Your task to perform on an android device: Search for the best custom wallets on Etsy. Image 0: 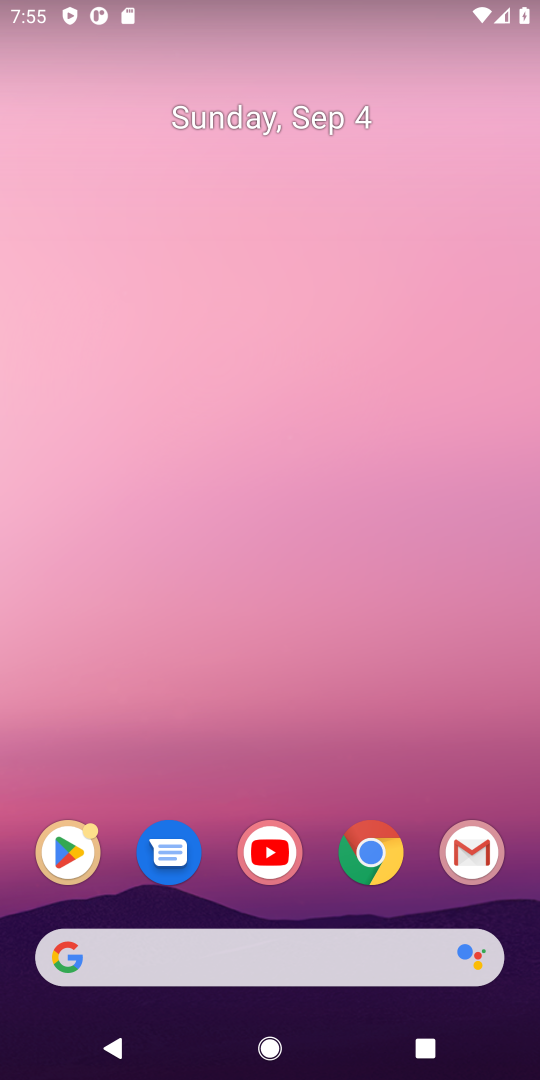
Step 0: drag from (441, 756) to (284, 6)
Your task to perform on an android device: Search for the best custom wallets on Etsy. Image 1: 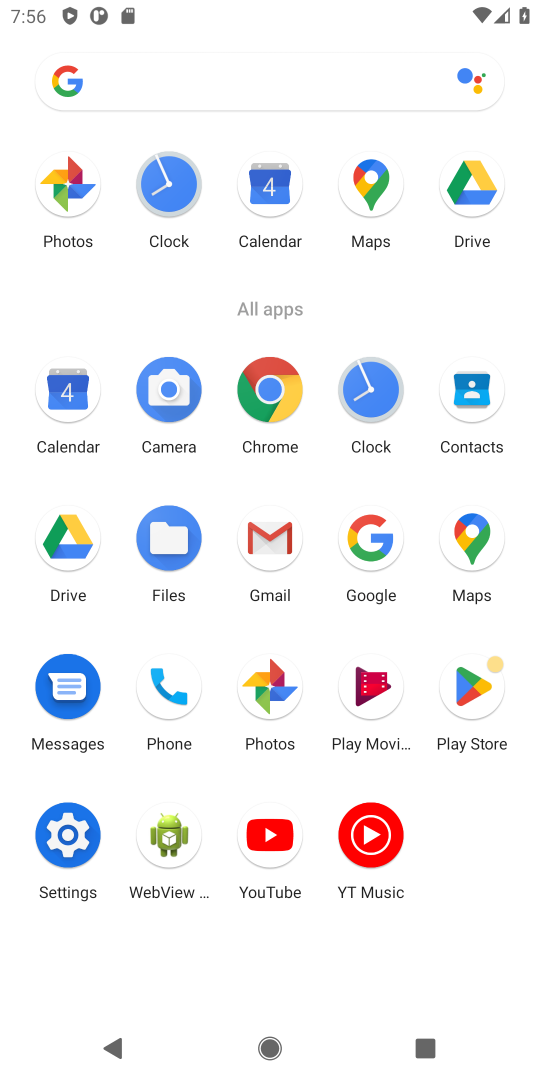
Step 1: click (372, 537)
Your task to perform on an android device: Search for the best custom wallets on Etsy. Image 2: 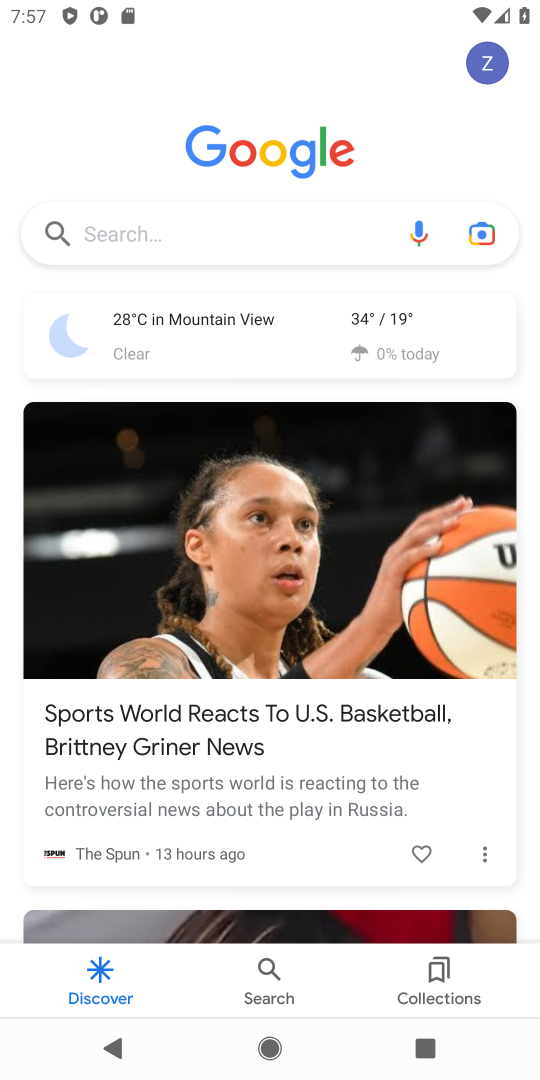
Step 2: click (187, 233)
Your task to perform on an android device: Search for the best custom wallets on Etsy. Image 3: 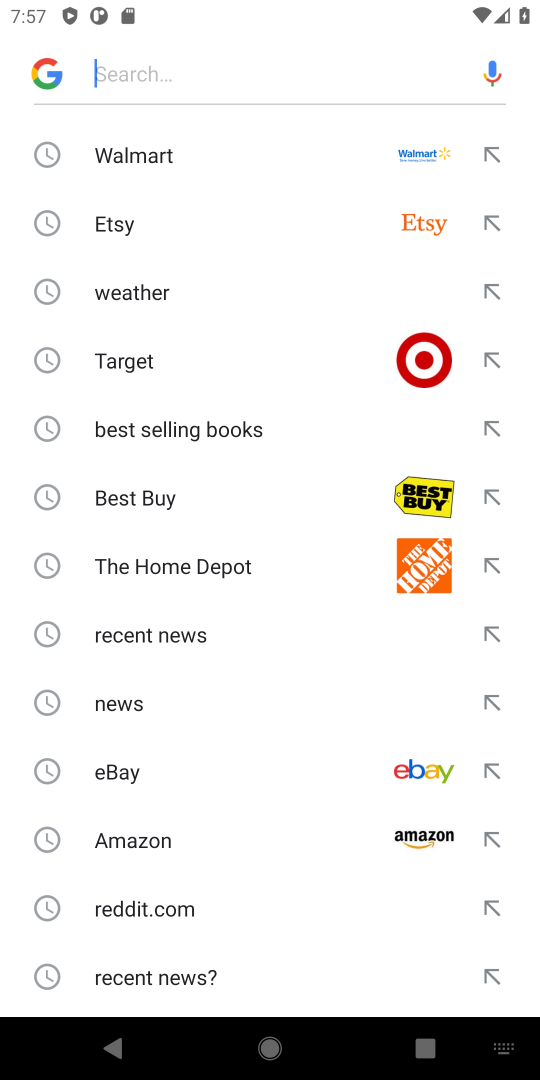
Step 3: click (104, 232)
Your task to perform on an android device: Search for the best custom wallets on Etsy. Image 4: 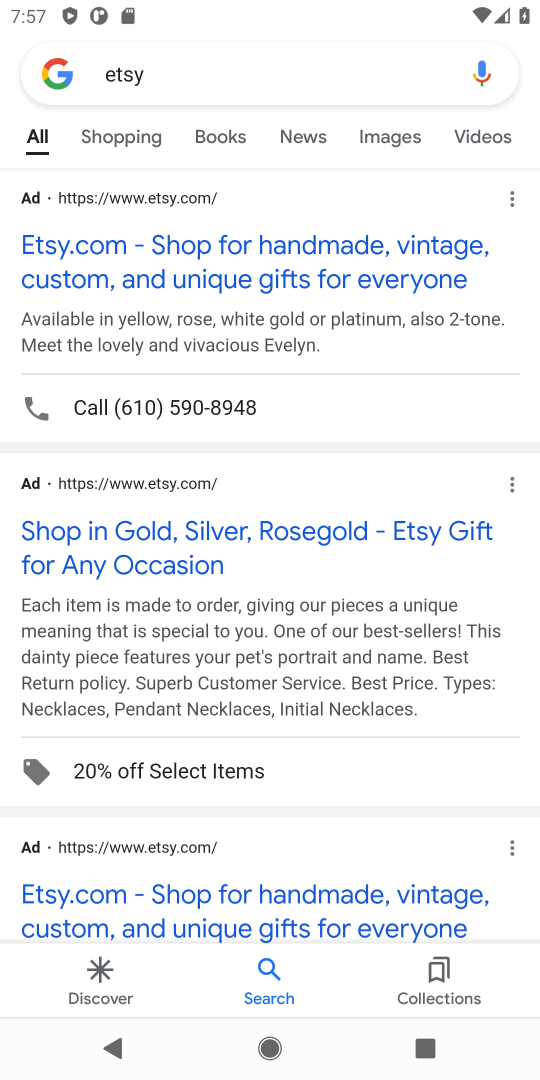
Step 4: click (191, 279)
Your task to perform on an android device: Search for the best custom wallets on Etsy. Image 5: 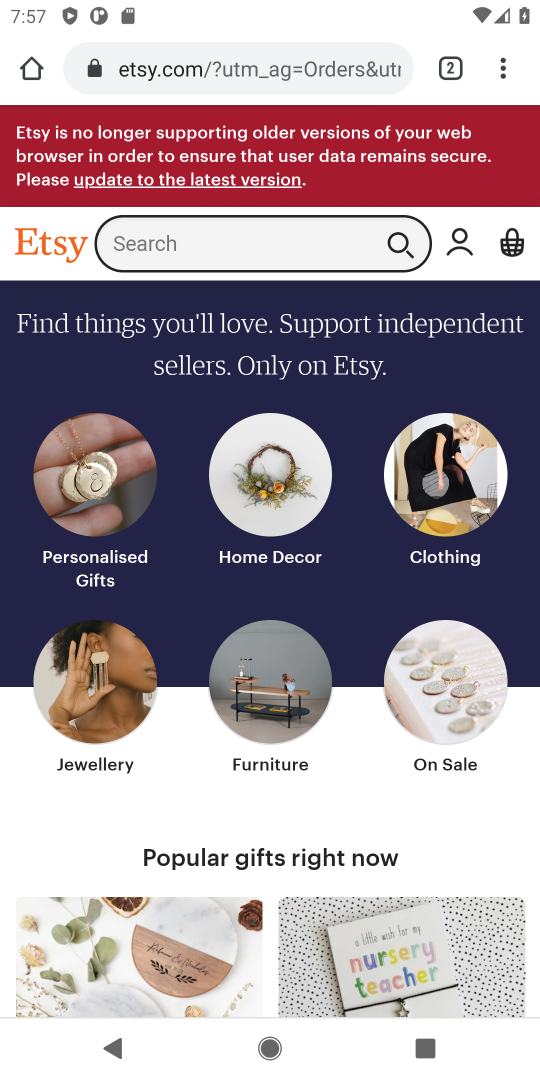
Step 5: click (223, 237)
Your task to perform on an android device: Search for the best custom wallets on Etsy. Image 6: 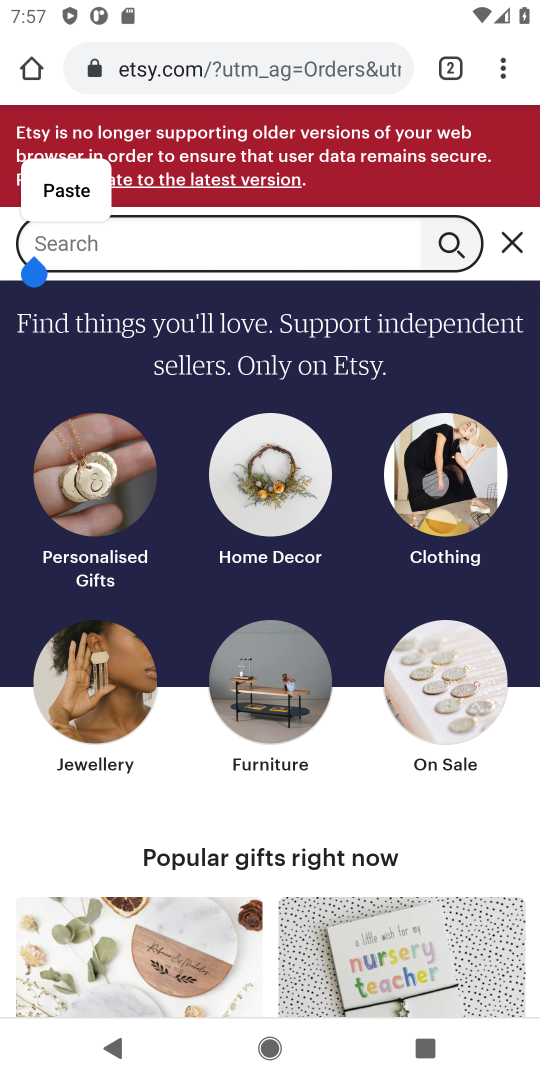
Step 6: type "custom"
Your task to perform on an android device: Search for the best custom wallets on Etsy. Image 7: 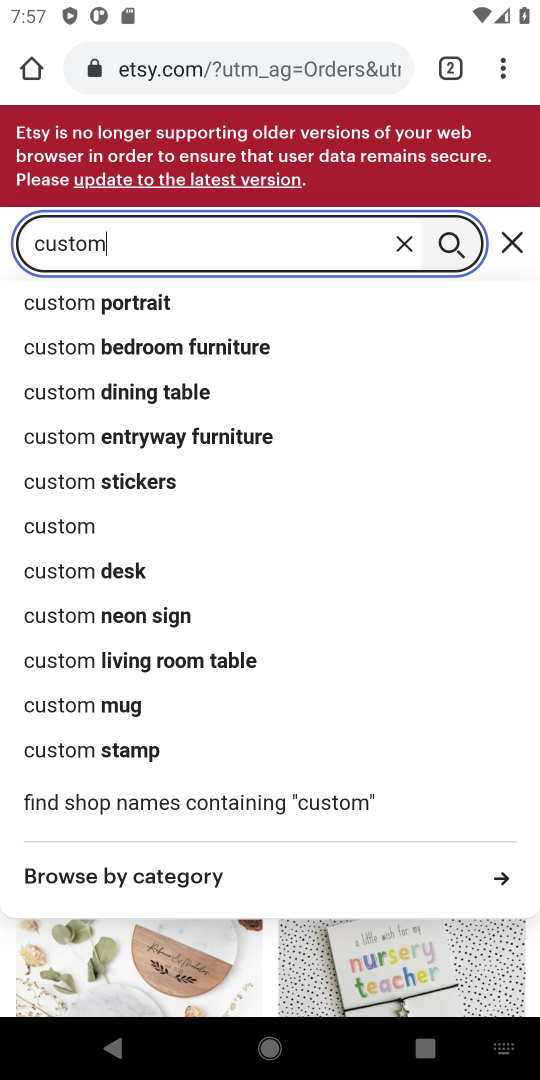
Step 7: click (448, 234)
Your task to perform on an android device: Search for the best custom wallets on Etsy. Image 8: 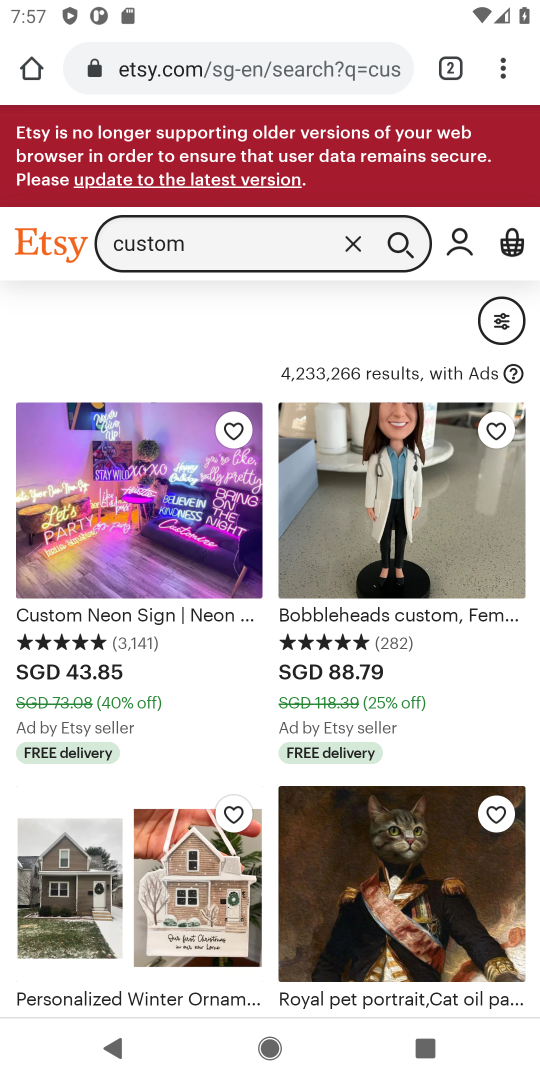
Step 8: task complete